Your task to perform on an android device: change alarm snooze length Image 0: 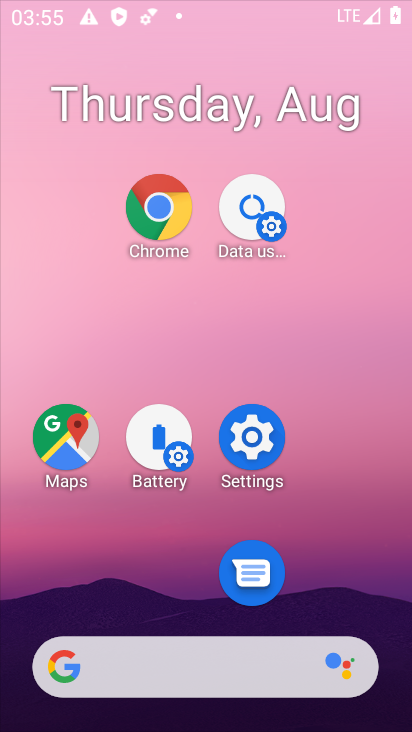
Step 0: click (30, 86)
Your task to perform on an android device: change alarm snooze length Image 1: 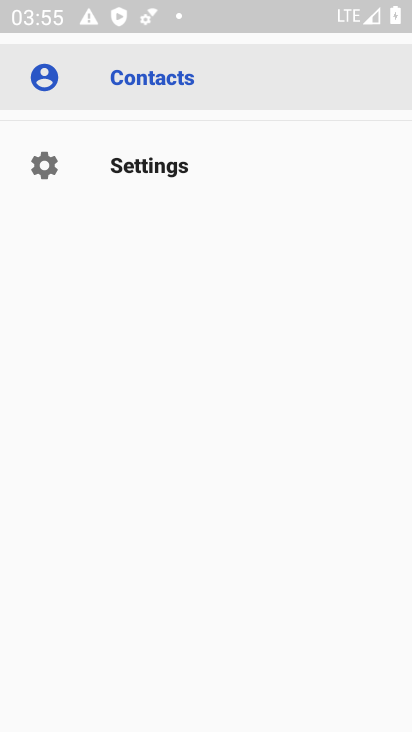
Step 1: press back button
Your task to perform on an android device: change alarm snooze length Image 2: 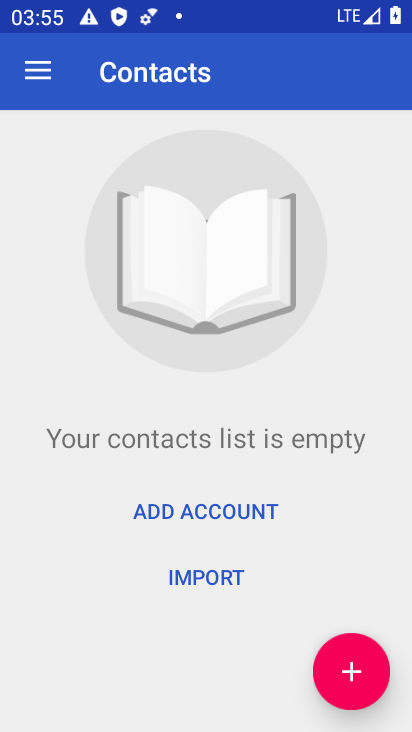
Step 2: press home button
Your task to perform on an android device: change alarm snooze length Image 3: 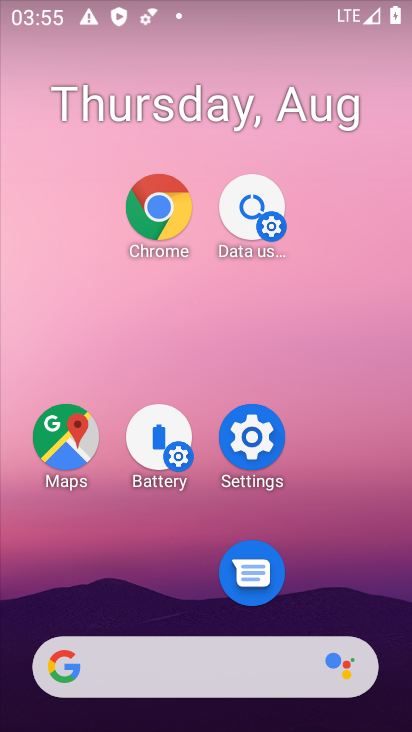
Step 3: drag from (189, 401) to (189, 185)
Your task to perform on an android device: change alarm snooze length Image 4: 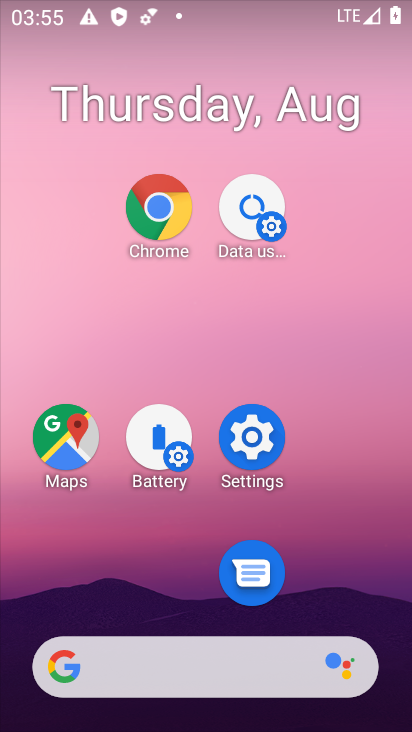
Step 4: click (165, 114)
Your task to perform on an android device: change alarm snooze length Image 5: 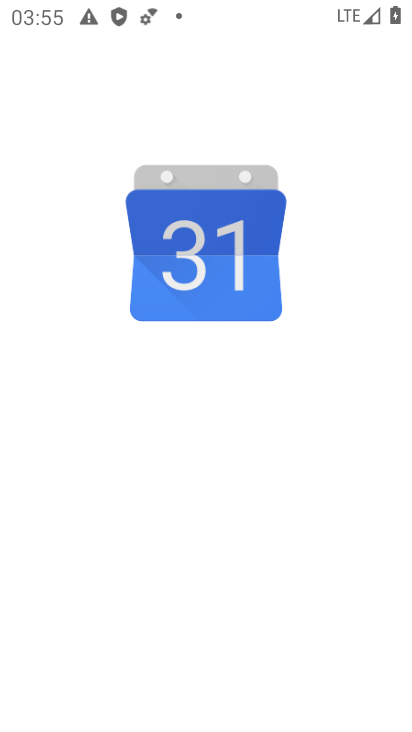
Step 5: drag from (202, 630) to (150, 146)
Your task to perform on an android device: change alarm snooze length Image 6: 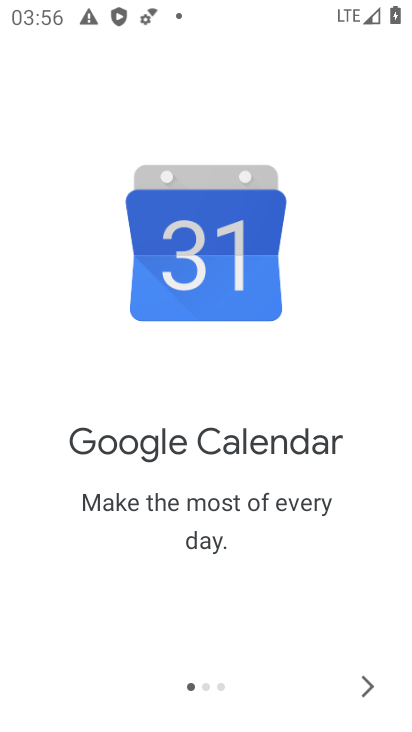
Step 6: press back button
Your task to perform on an android device: change alarm snooze length Image 7: 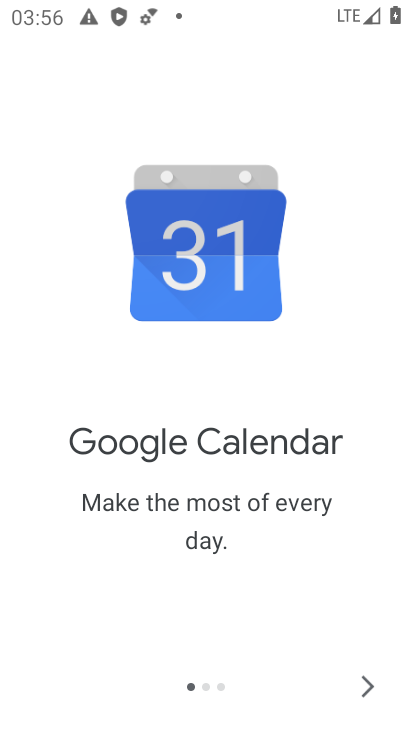
Step 7: press back button
Your task to perform on an android device: change alarm snooze length Image 8: 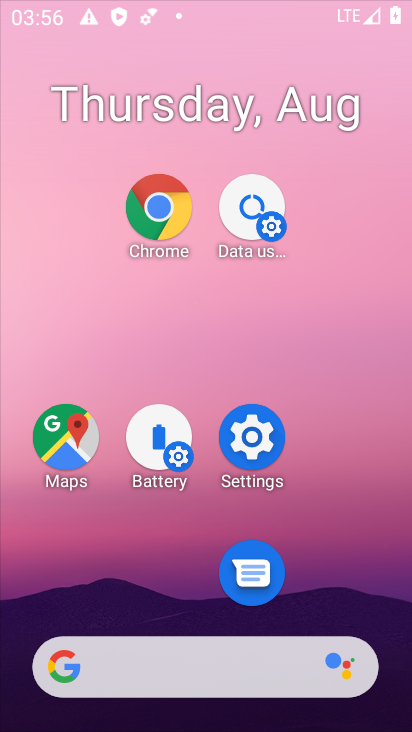
Step 8: press back button
Your task to perform on an android device: change alarm snooze length Image 9: 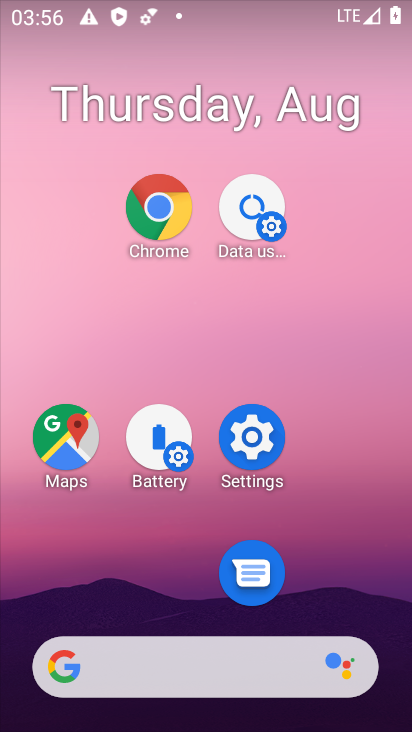
Step 9: drag from (304, 616) to (207, 181)
Your task to perform on an android device: change alarm snooze length Image 10: 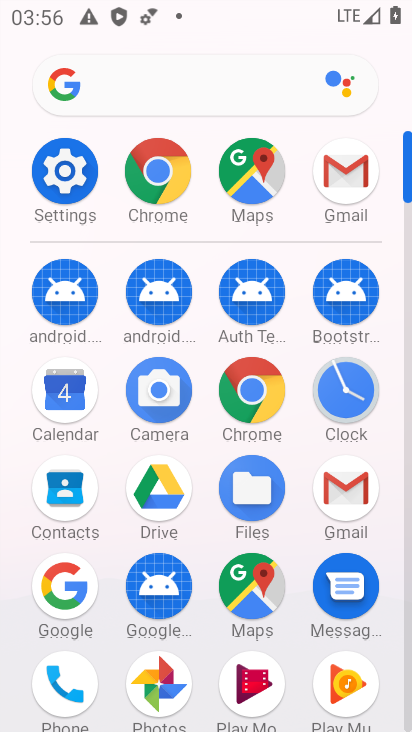
Step 10: click (69, 174)
Your task to perform on an android device: change alarm snooze length Image 11: 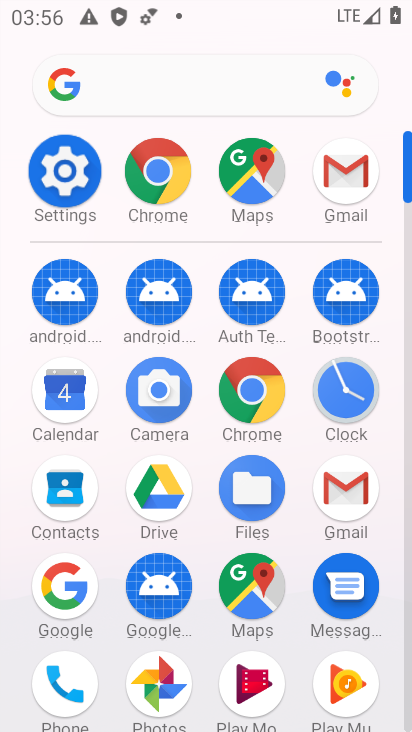
Step 11: click (68, 174)
Your task to perform on an android device: change alarm snooze length Image 12: 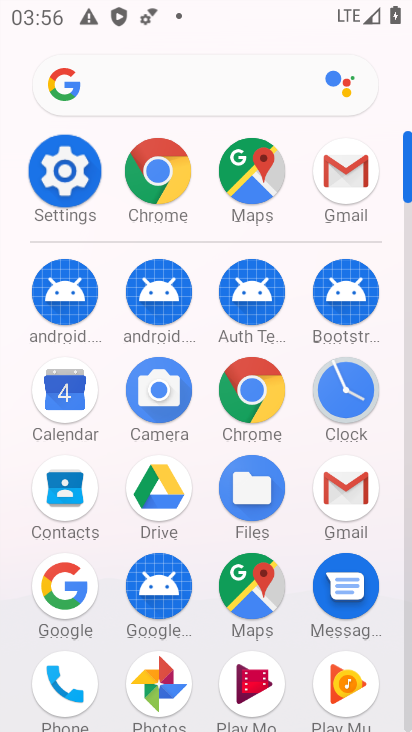
Step 12: click (69, 174)
Your task to perform on an android device: change alarm snooze length Image 13: 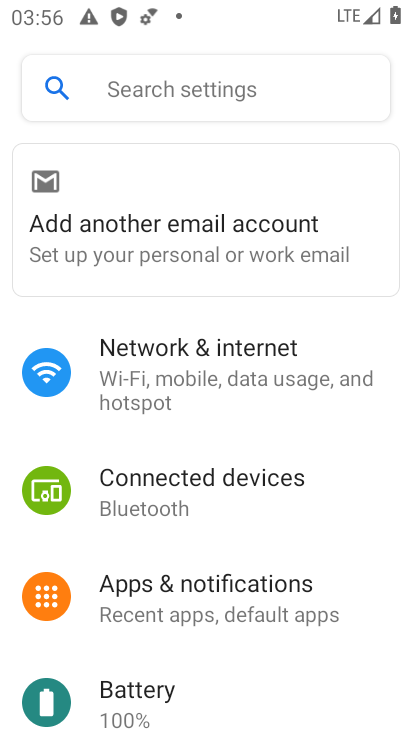
Step 13: click (64, 177)
Your task to perform on an android device: change alarm snooze length Image 14: 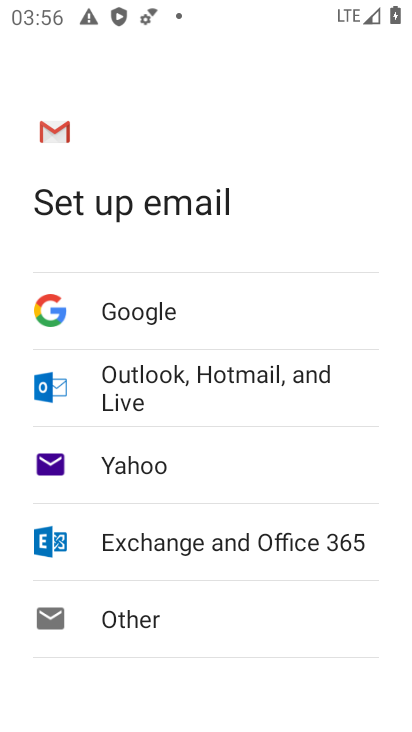
Step 14: press back button
Your task to perform on an android device: change alarm snooze length Image 15: 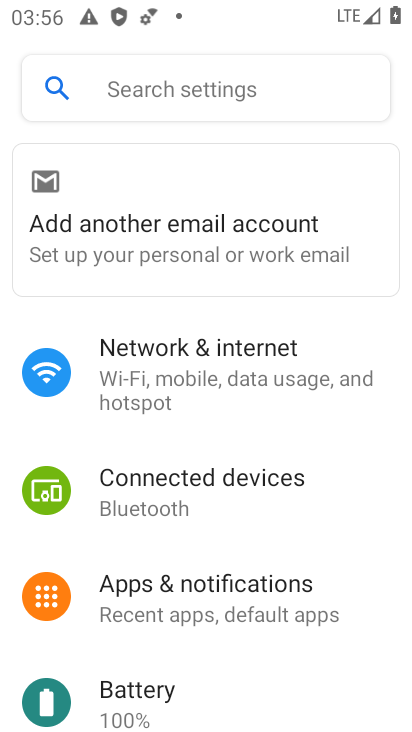
Step 15: press home button
Your task to perform on an android device: change alarm snooze length Image 16: 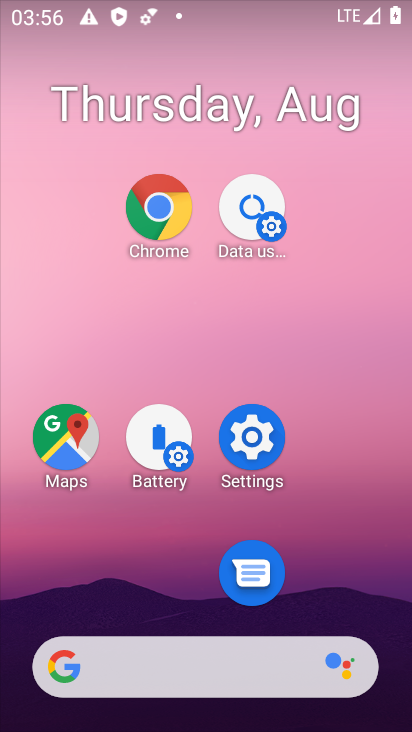
Step 16: drag from (268, 577) to (200, 143)
Your task to perform on an android device: change alarm snooze length Image 17: 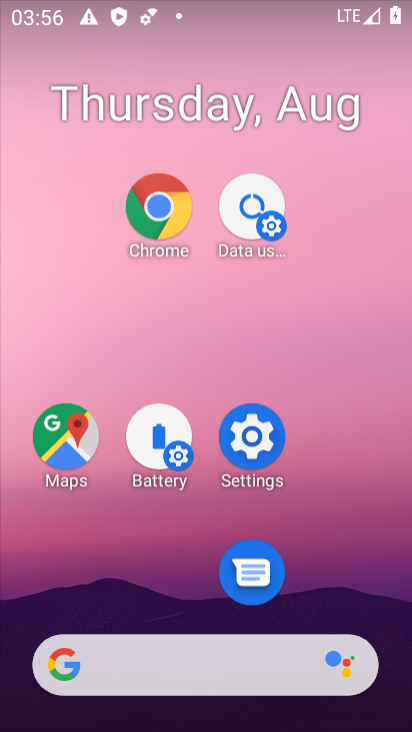
Step 17: drag from (266, 512) to (202, 121)
Your task to perform on an android device: change alarm snooze length Image 18: 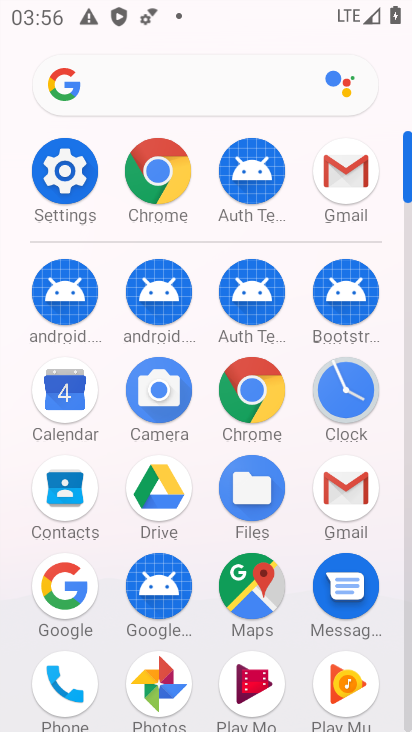
Step 18: click (339, 386)
Your task to perform on an android device: change alarm snooze length Image 19: 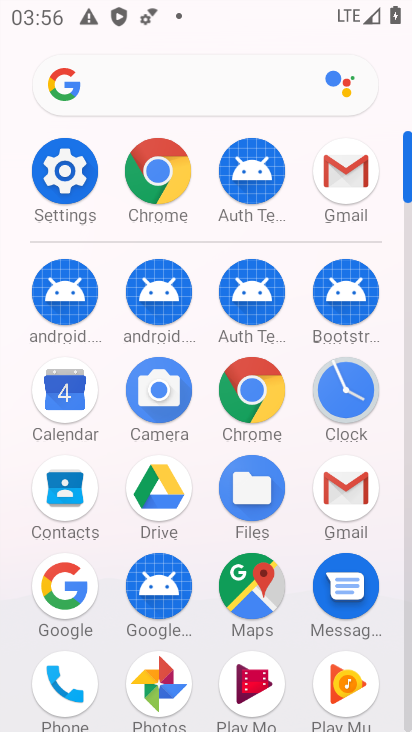
Step 19: click (339, 386)
Your task to perform on an android device: change alarm snooze length Image 20: 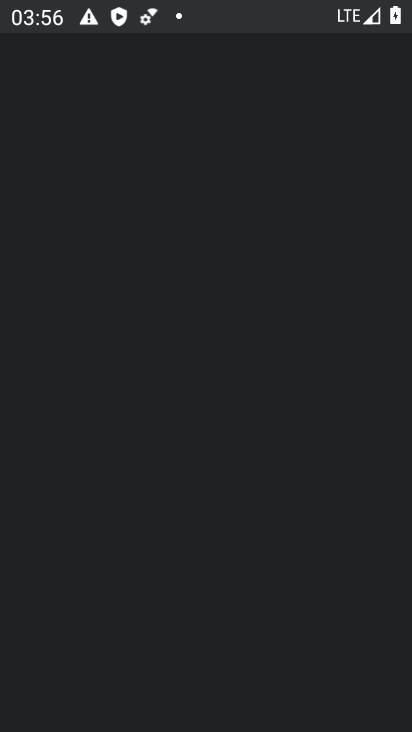
Step 20: click (339, 386)
Your task to perform on an android device: change alarm snooze length Image 21: 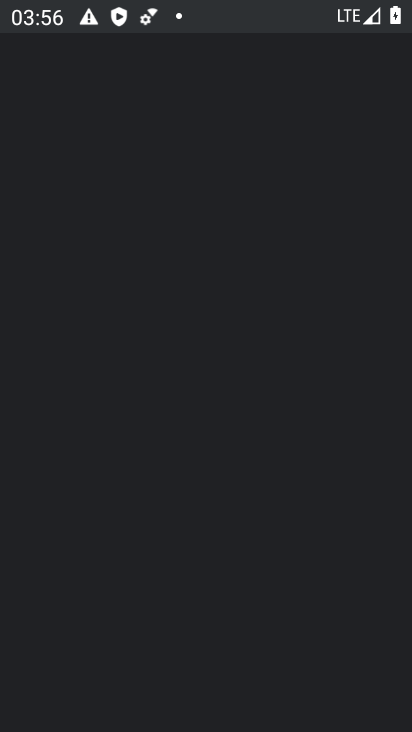
Step 21: click (339, 386)
Your task to perform on an android device: change alarm snooze length Image 22: 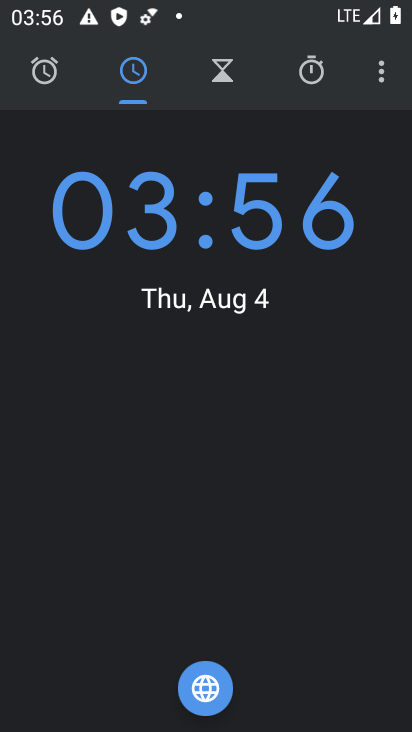
Step 22: click (360, 85)
Your task to perform on an android device: change alarm snooze length Image 23: 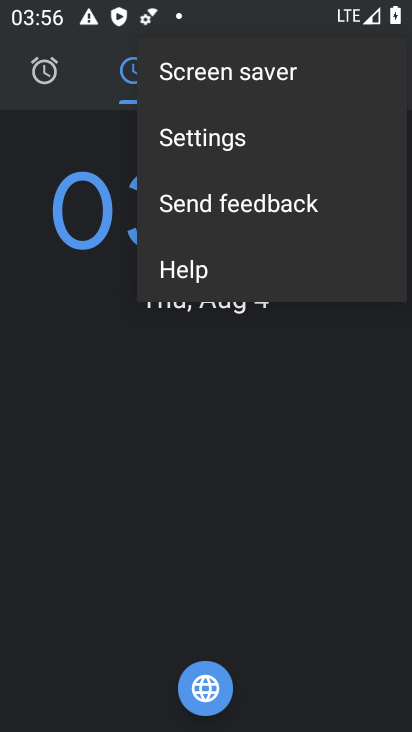
Step 23: click (192, 140)
Your task to perform on an android device: change alarm snooze length Image 24: 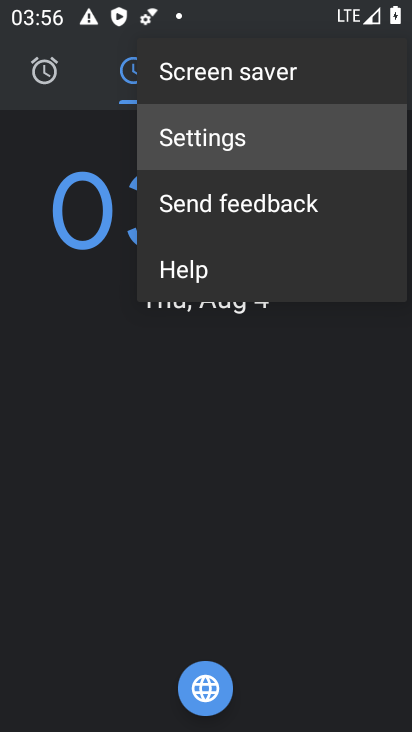
Step 24: click (193, 138)
Your task to perform on an android device: change alarm snooze length Image 25: 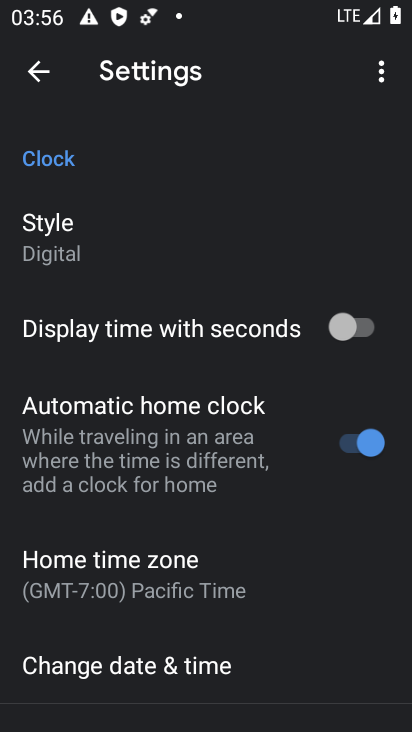
Step 25: drag from (116, 498) to (60, 81)
Your task to perform on an android device: change alarm snooze length Image 26: 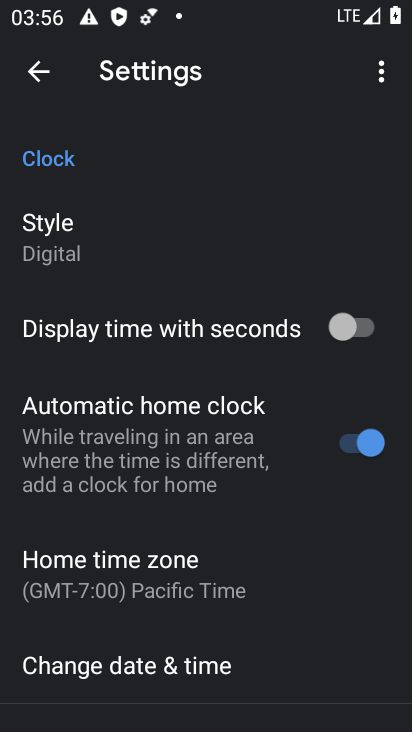
Step 26: drag from (47, 551) to (8, 218)
Your task to perform on an android device: change alarm snooze length Image 27: 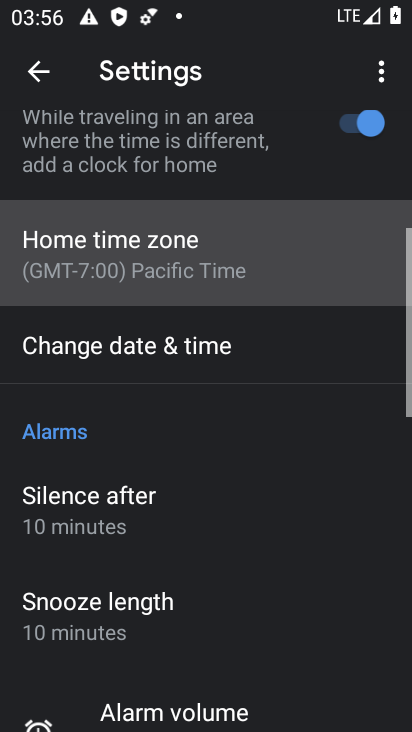
Step 27: drag from (123, 556) to (90, 254)
Your task to perform on an android device: change alarm snooze length Image 28: 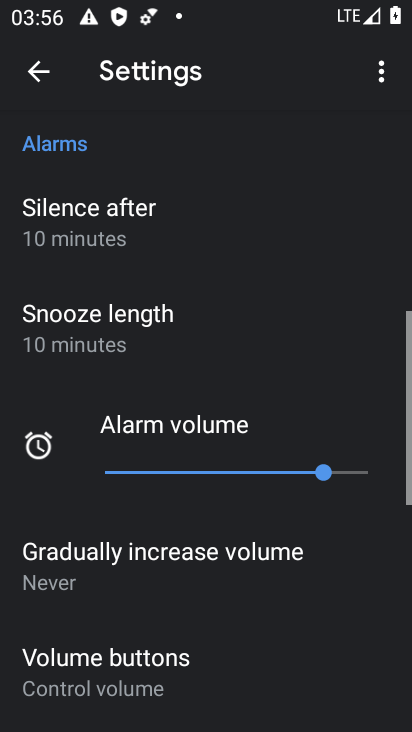
Step 28: drag from (139, 551) to (104, 285)
Your task to perform on an android device: change alarm snooze length Image 29: 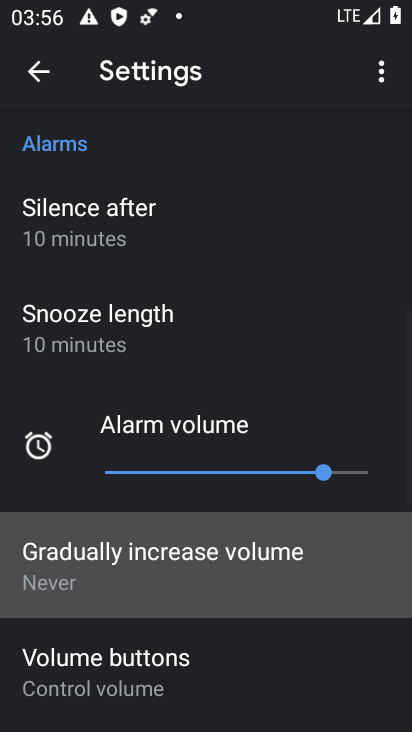
Step 29: drag from (111, 618) to (83, 400)
Your task to perform on an android device: change alarm snooze length Image 30: 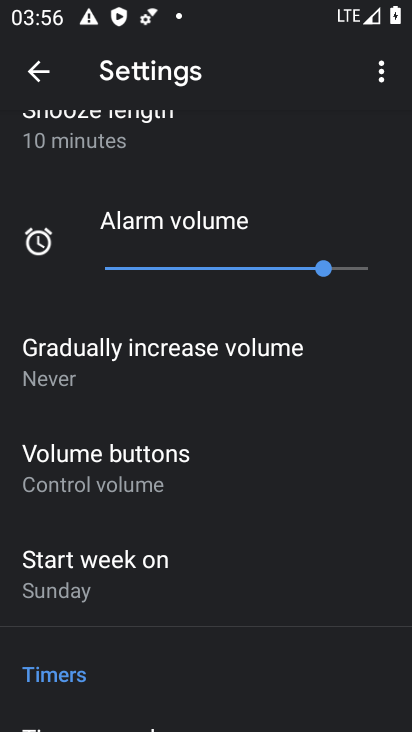
Step 30: drag from (108, 234) to (153, 498)
Your task to perform on an android device: change alarm snooze length Image 31: 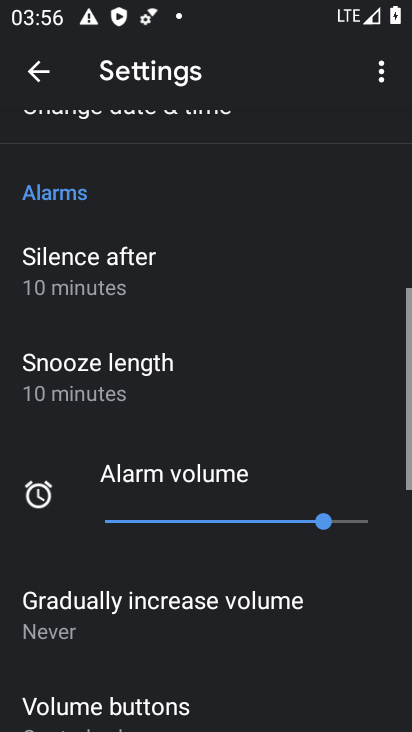
Step 31: drag from (160, 318) to (159, 474)
Your task to perform on an android device: change alarm snooze length Image 32: 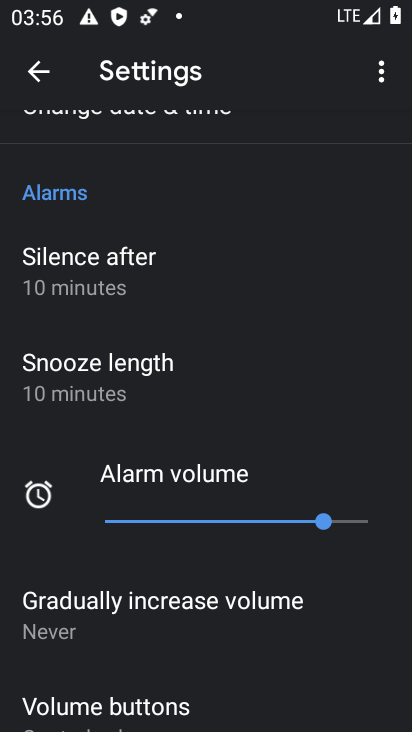
Step 32: click (98, 379)
Your task to perform on an android device: change alarm snooze length Image 33: 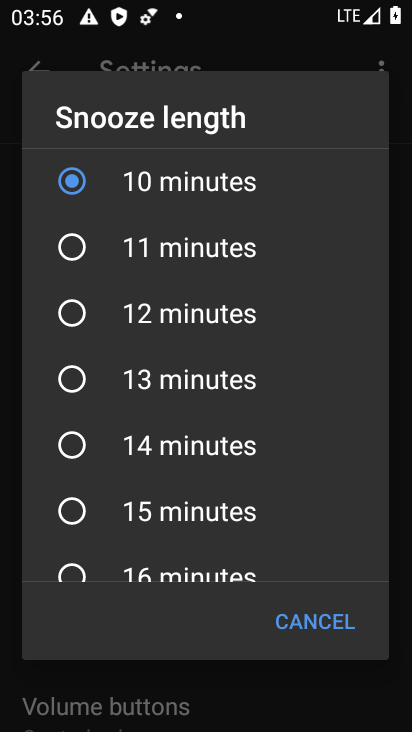
Step 33: click (66, 366)
Your task to perform on an android device: change alarm snooze length Image 34: 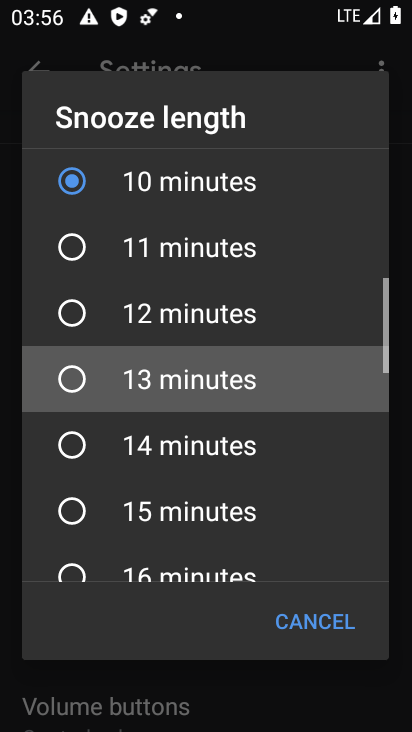
Step 34: click (69, 365)
Your task to perform on an android device: change alarm snooze length Image 35: 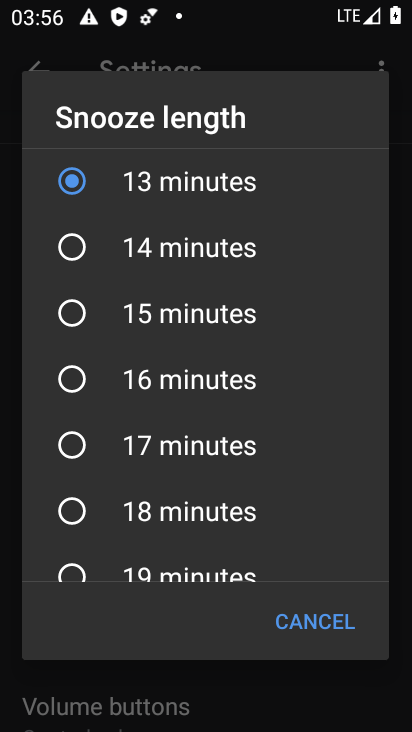
Step 35: click (69, 305)
Your task to perform on an android device: change alarm snooze length Image 36: 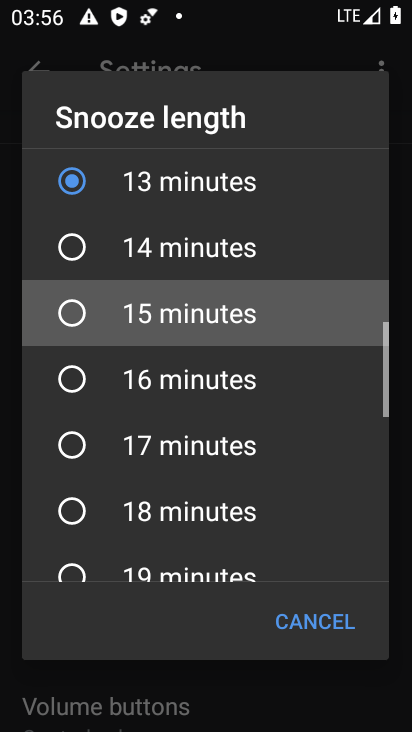
Step 36: click (69, 305)
Your task to perform on an android device: change alarm snooze length Image 37: 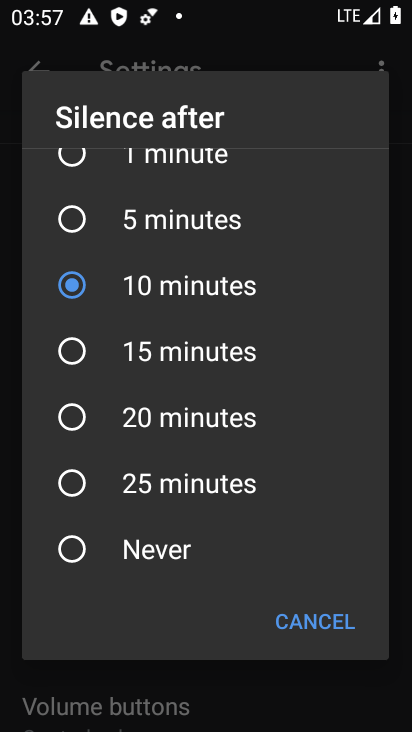
Step 37: task complete